Your task to perform on an android device: Open accessibility settings Image 0: 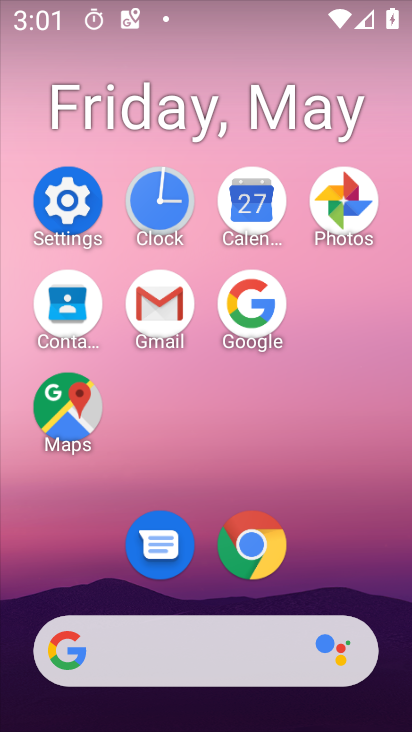
Step 0: click (83, 212)
Your task to perform on an android device: Open accessibility settings Image 1: 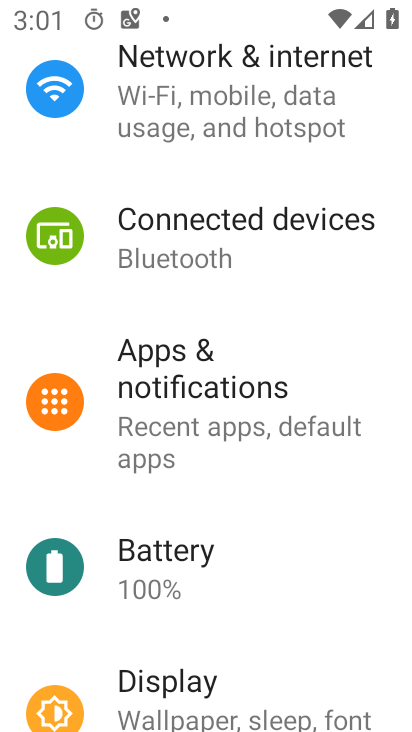
Step 1: drag from (251, 637) to (325, 187)
Your task to perform on an android device: Open accessibility settings Image 2: 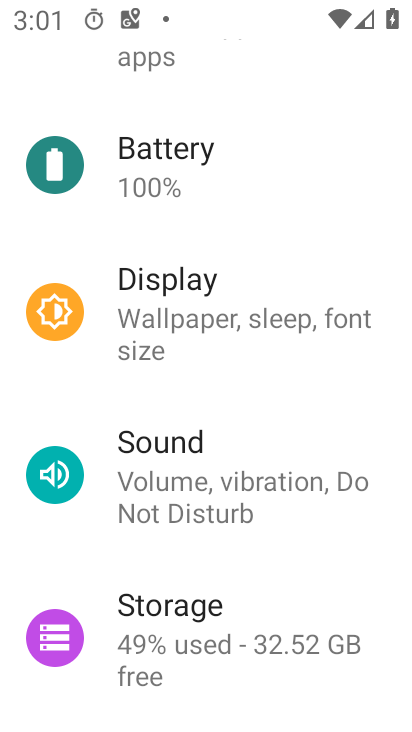
Step 2: drag from (311, 608) to (332, 164)
Your task to perform on an android device: Open accessibility settings Image 3: 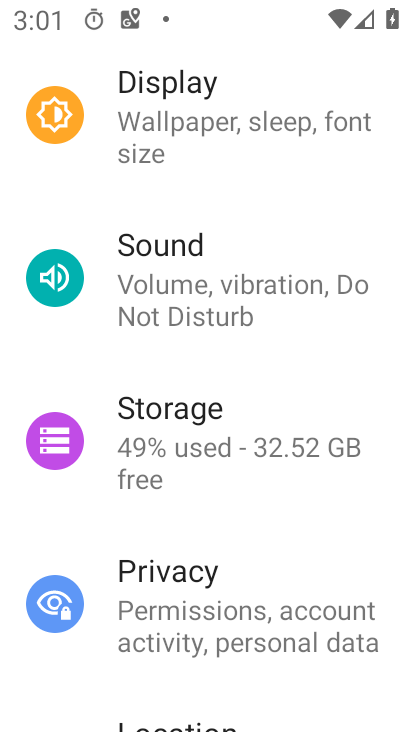
Step 3: drag from (273, 571) to (289, 169)
Your task to perform on an android device: Open accessibility settings Image 4: 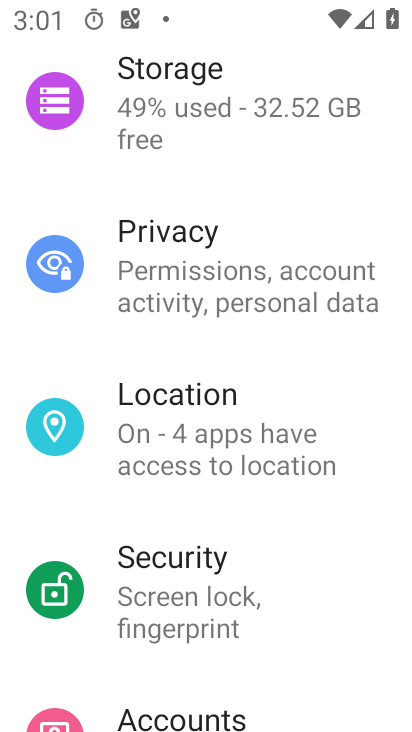
Step 4: drag from (252, 614) to (315, 234)
Your task to perform on an android device: Open accessibility settings Image 5: 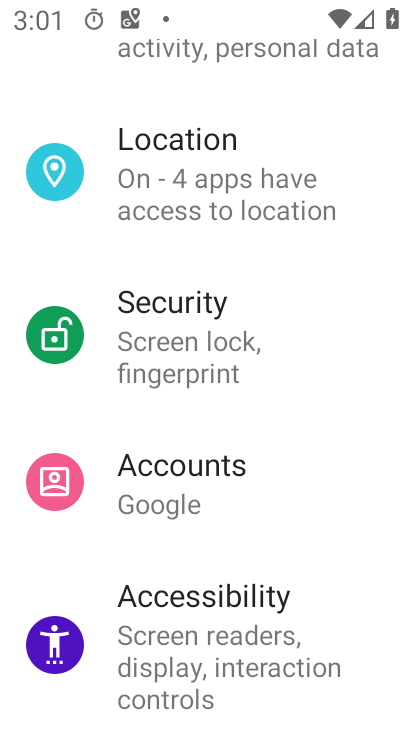
Step 5: click (238, 617)
Your task to perform on an android device: Open accessibility settings Image 6: 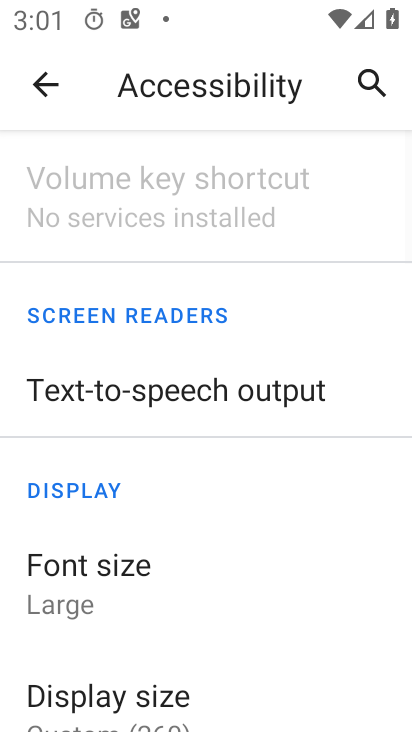
Step 6: task complete